Your task to perform on an android device: Go to eBay Image 0: 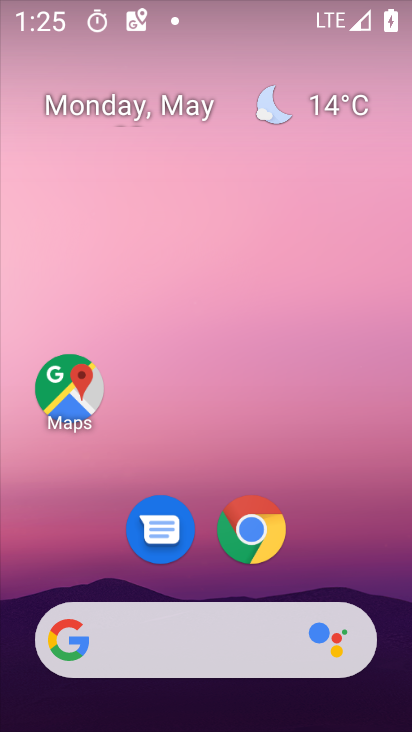
Step 0: drag from (365, 571) to (340, 157)
Your task to perform on an android device: Go to eBay Image 1: 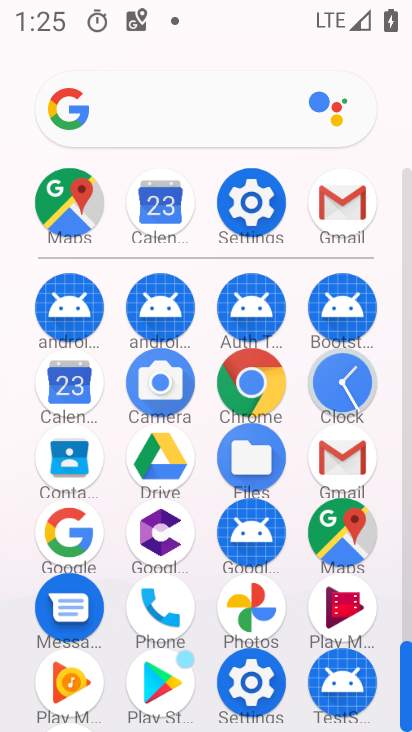
Step 1: click (248, 396)
Your task to perform on an android device: Go to eBay Image 2: 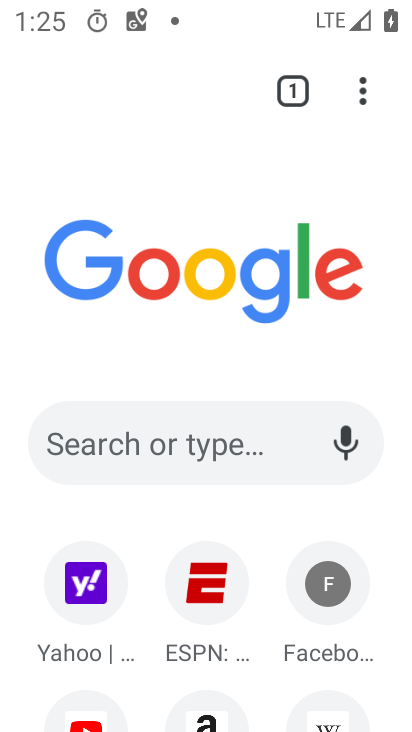
Step 2: drag from (262, 547) to (249, 432)
Your task to perform on an android device: Go to eBay Image 3: 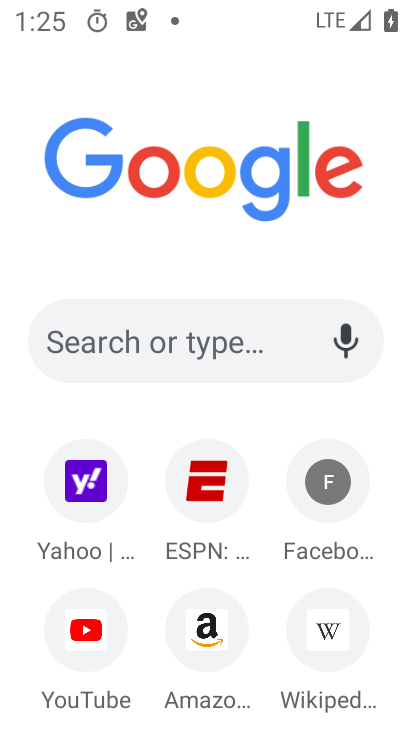
Step 3: drag from (265, 636) to (273, 511)
Your task to perform on an android device: Go to eBay Image 4: 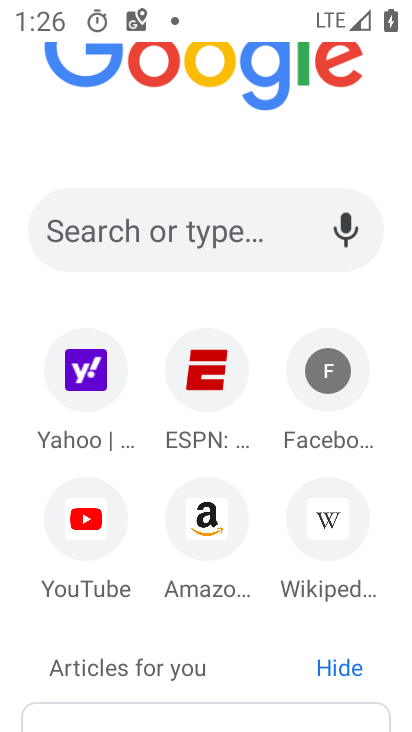
Step 4: click (233, 247)
Your task to perform on an android device: Go to eBay Image 5: 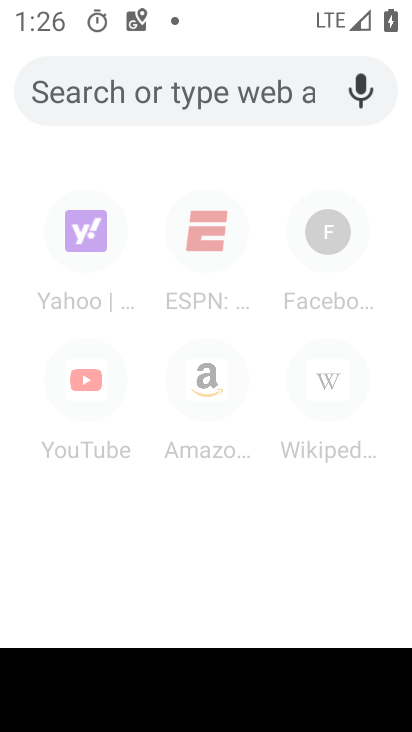
Step 5: type "ebay"
Your task to perform on an android device: Go to eBay Image 6: 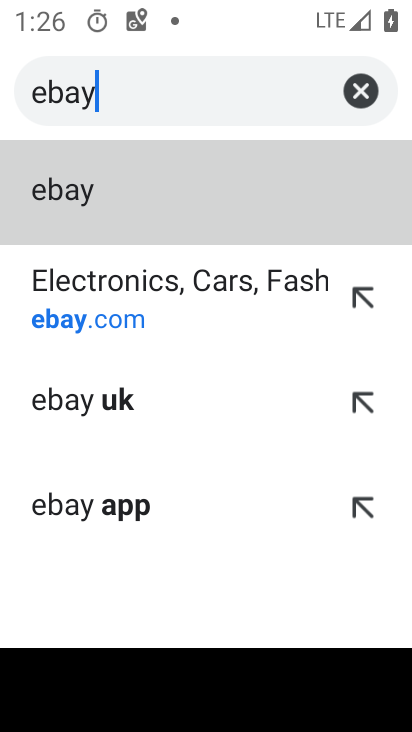
Step 6: click (261, 218)
Your task to perform on an android device: Go to eBay Image 7: 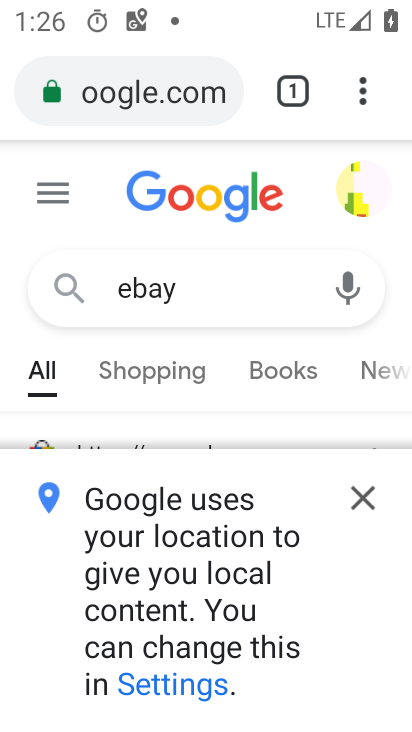
Step 7: task complete